Your task to perform on an android device: toggle notification dots Image 0: 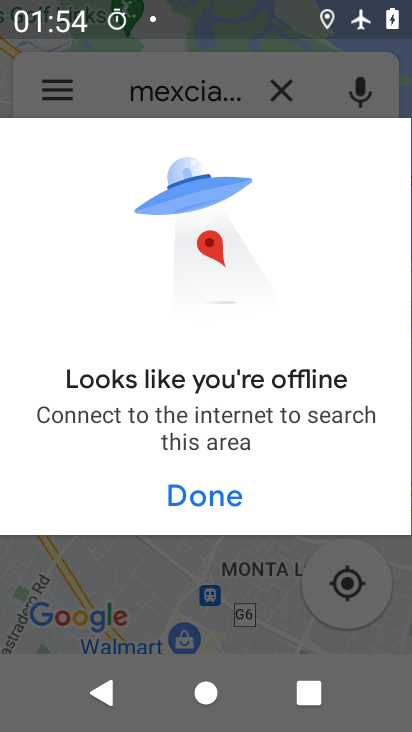
Step 0: press home button
Your task to perform on an android device: toggle notification dots Image 1: 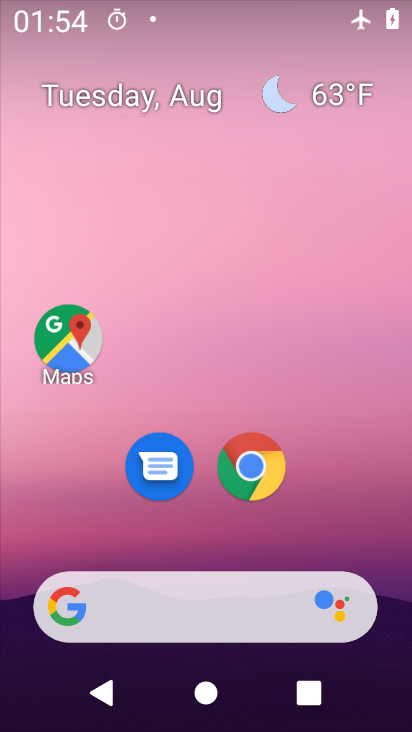
Step 1: drag from (362, 520) to (367, 114)
Your task to perform on an android device: toggle notification dots Image 2: 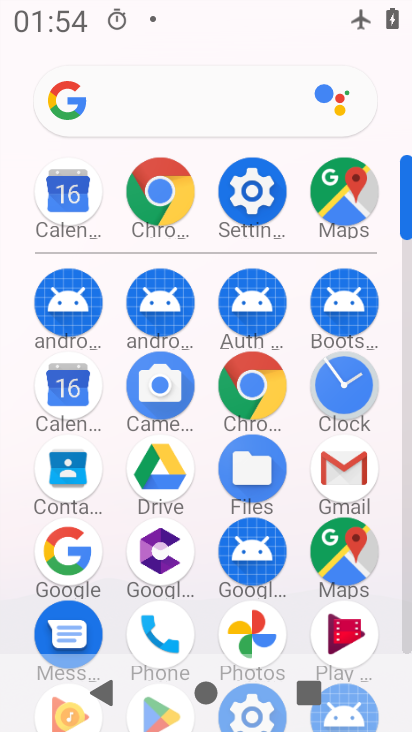
Step 2: click (262, 182)
Your task to perform on an android device: toggle notification dots Image 3: 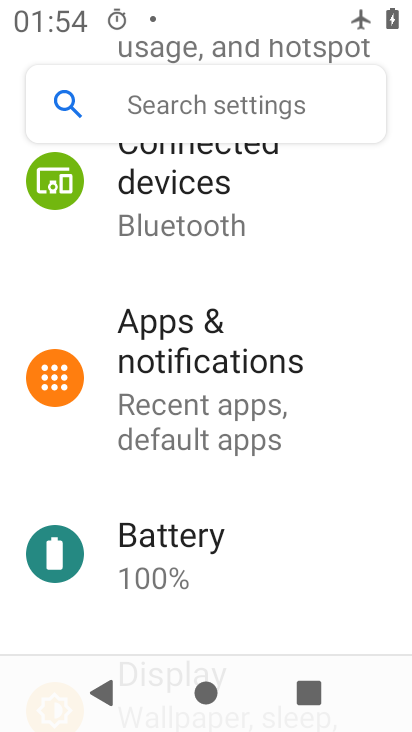
Step 3: drag from (355, 206) to (341, 363)
Your task to perform on an android device: toggle notification dots Image 4: 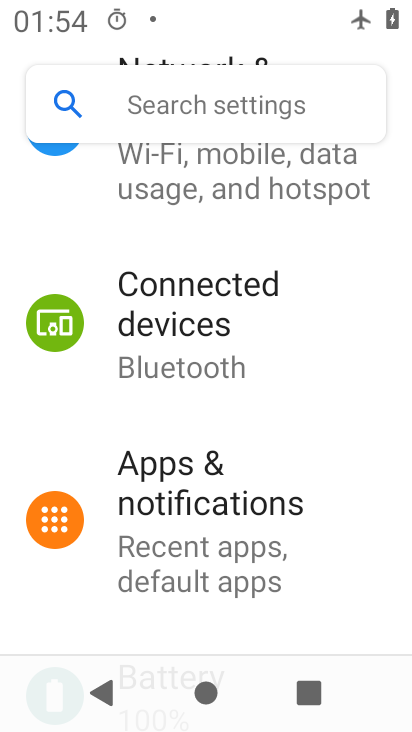
Step 4: drag from (374, 197) to (360, 356)
Your task to perform on an android device: toggle notification dots Image 5: 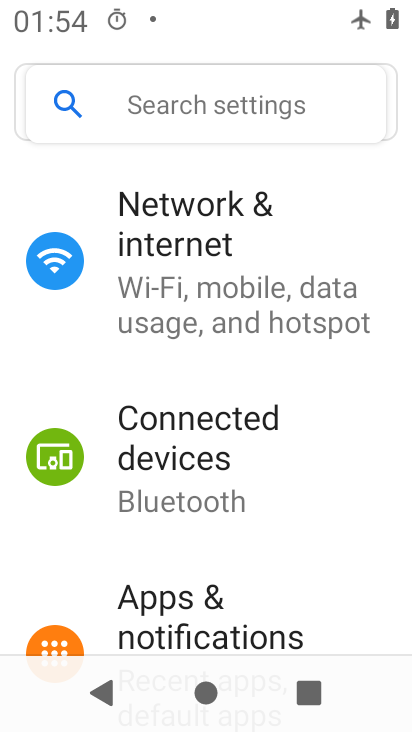
Step 5: drag from (363, 182) to (345, 401)
Your task to perform on an android device: toggle notification dots Image 6: 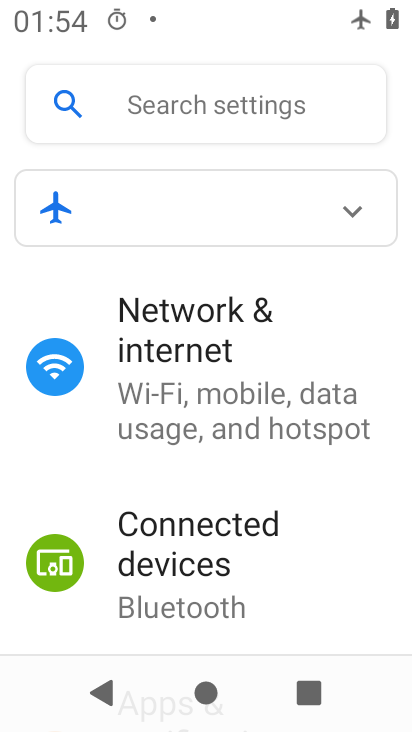
Step 6: drag from (326, 494) to (350, 338)
Your task to perform on an android device: toggle notification dots Image 7: 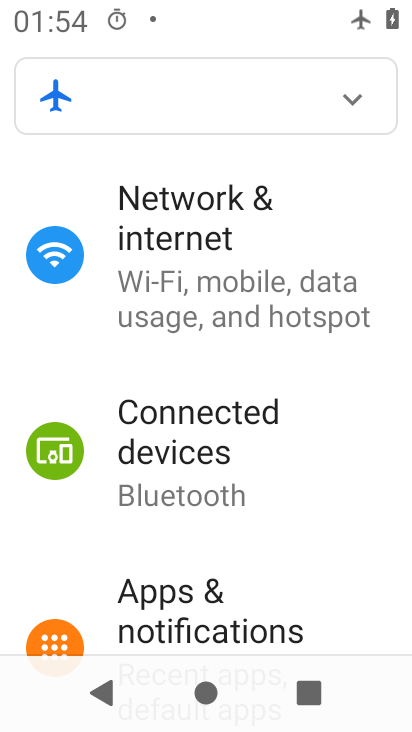
Step 7: drag from (336, 501) to (357, 383)
Your task to perform on an android device: toggle notification dots Image 8: 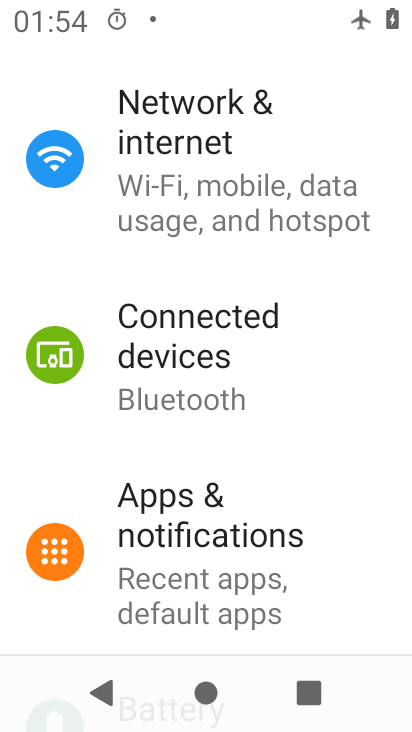
Step 8: drag from (342, 515) to (360, 358)
Your task to perform on an android device: toggle notification dots Image 9: 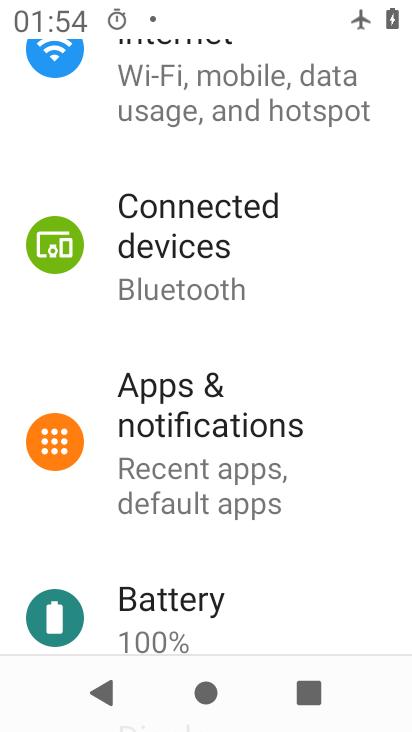
Step 9: drag from (331, 539) to (354, 396)
Your task to perform on an android device: toggle notification dots Image 10: 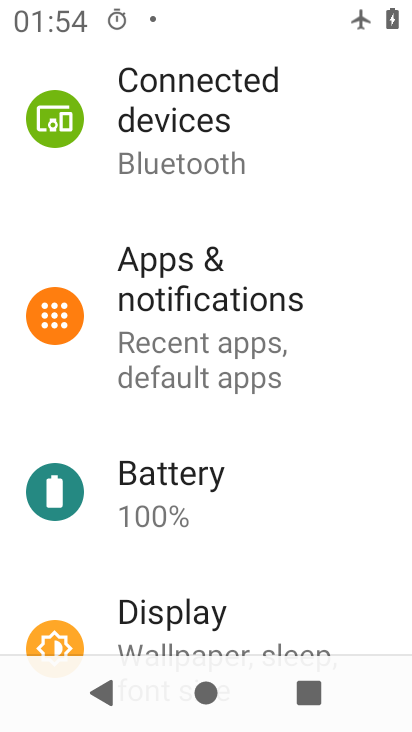
Step 10: drag from (312, 492) to (339, 344)
Your task to perform on an android device: toggle notification dots Image 11: 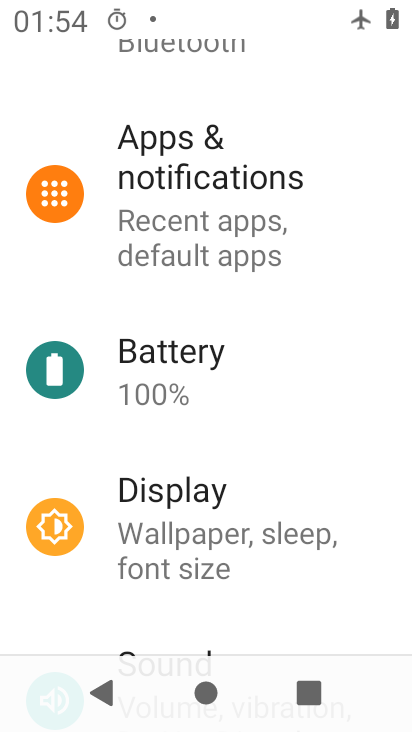
Step 11: click (264, 237)
Your task to perform on an android device: toggle notification dots Image 12: 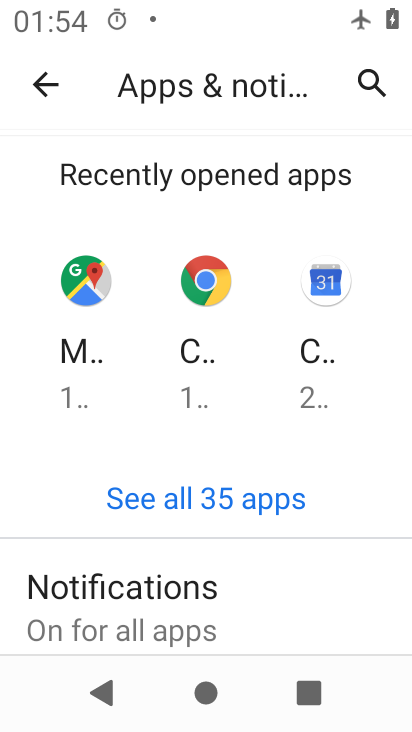
Step 12: drag from (313, 585) to (329, 364)
Your task to perform on an android device: toggle notification dots Image 13: 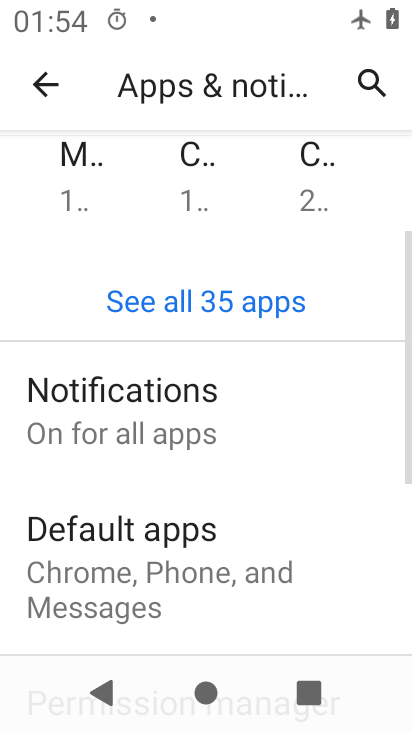
Step 13: drag from (354, 490) to (371, 322)
Your task to perform on an android device: toggle notification dots Image 14: 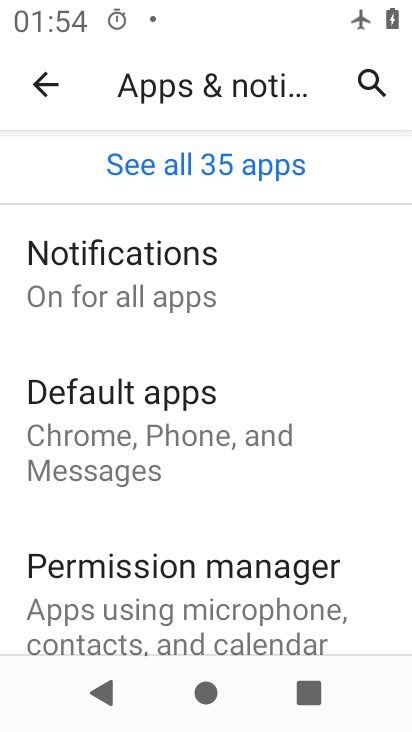
Step 14: click (233, 281)
Your task to perform on an android device: toggle notification dots Image 15: 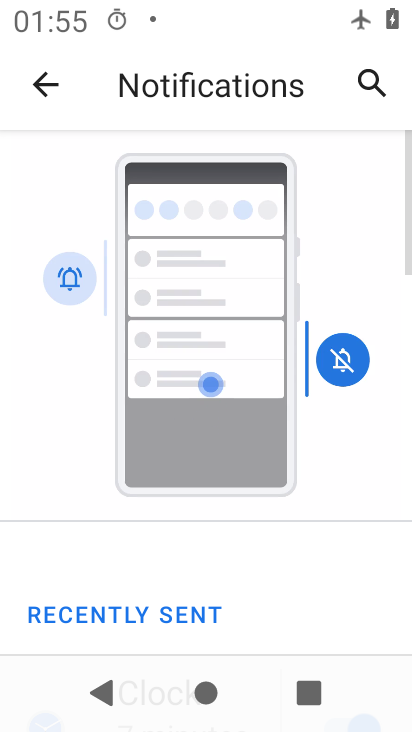
Step 15: drag from (325, 502) to (324, 305)
Your task to perform on an android device: toggle notification dots Image 16: 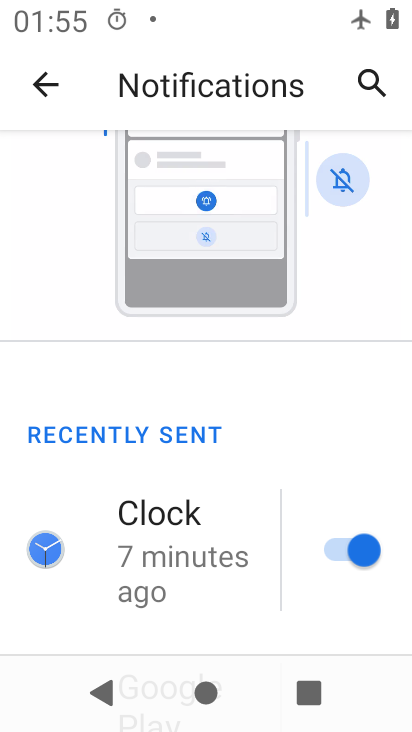
Step 16: drag from (302, 546) to (318, 391)
Your task to perform on an android device: toggle notification dots Image 17: 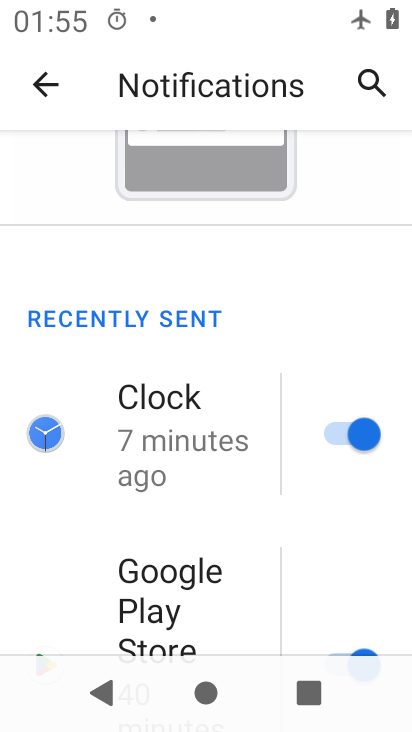
Step 17: drag from (305, 522) to (311, 343)
Your task to perform on an android device: toggle notification dots Image 18: 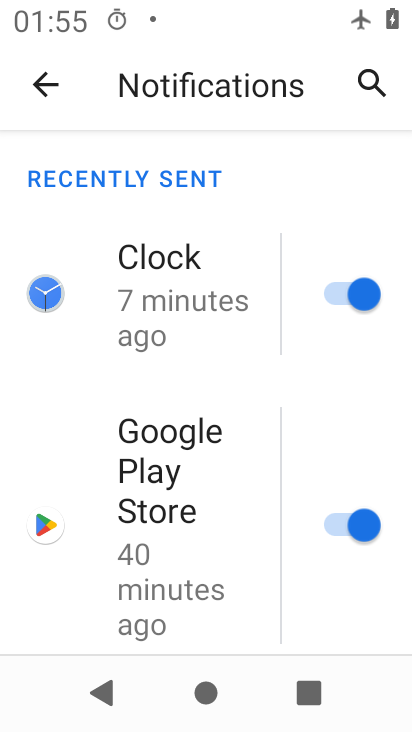
Step 18: drag from (242, 572) to (268, 340)
Your task to perform on an android device: toggle notification dots Image 19: 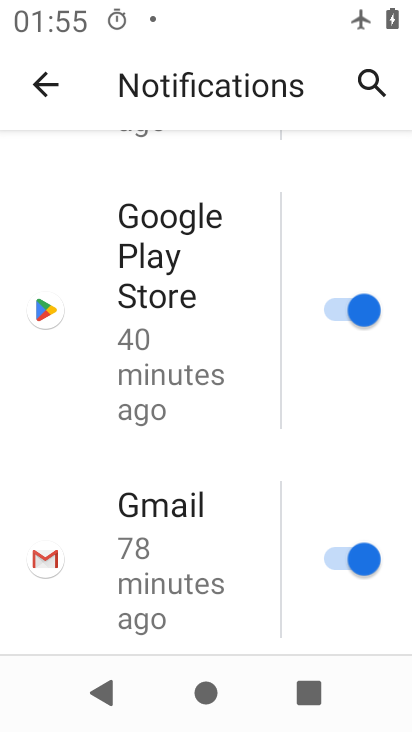
Step 19: drag from (256, 596) to (249, 346)
Your task to perform on an android device: toggle notification dots Image 20: 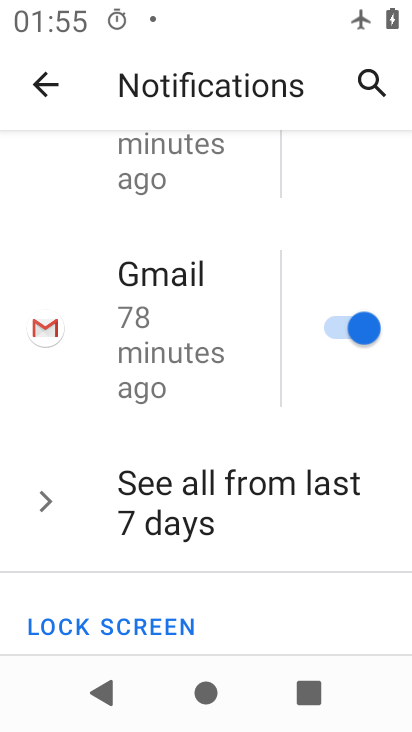
Step 20: drag from (248, 590) to (253, 340)
Your task to perform on an android device: toggle notification dots Image 21: 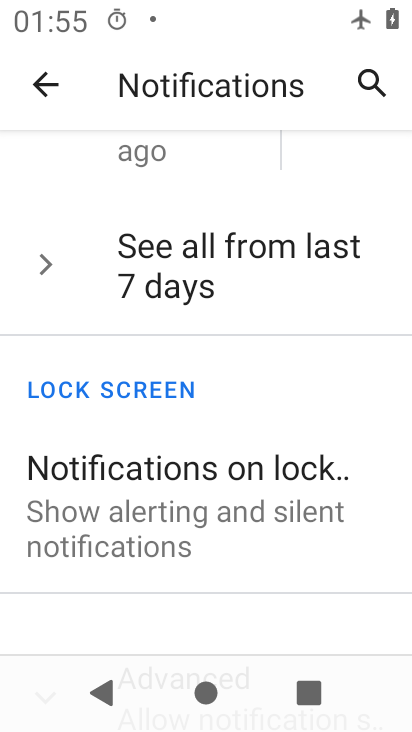
Step 21: drag from (244, 586) to (262, 381)
Your task to perform on an android device: toggle notification dots Image 22: 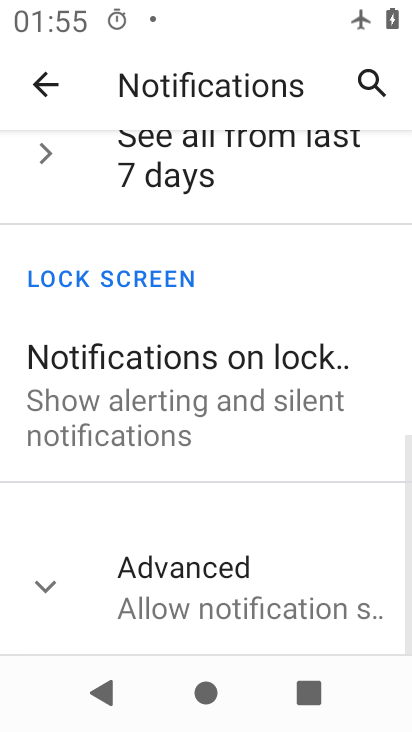
Step 22: click (253, 578)
Your task to perform on an android device: toggle notification dots Image 23: 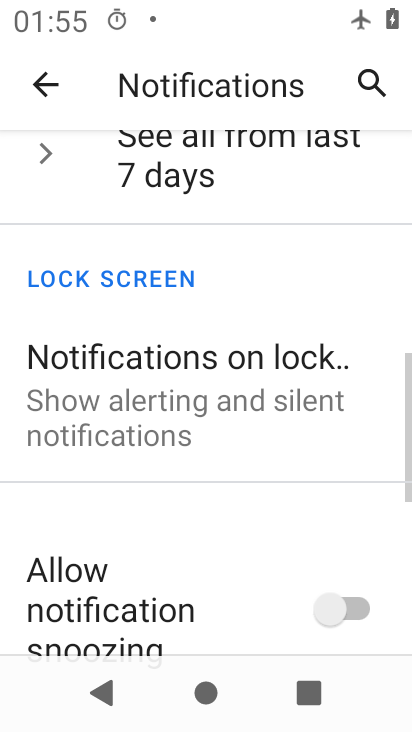
Step 23: drag from (238, 607) to (236, 403)
Your task to perform on an android device: toggle notification dots Image 24: 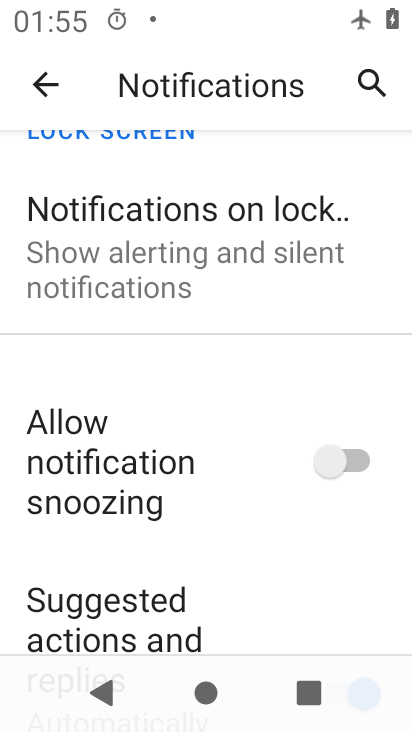
Step 24: drag from (256, 583) to (254, 397)
Your task to perform on an android device: toggle notification dots Image 25: 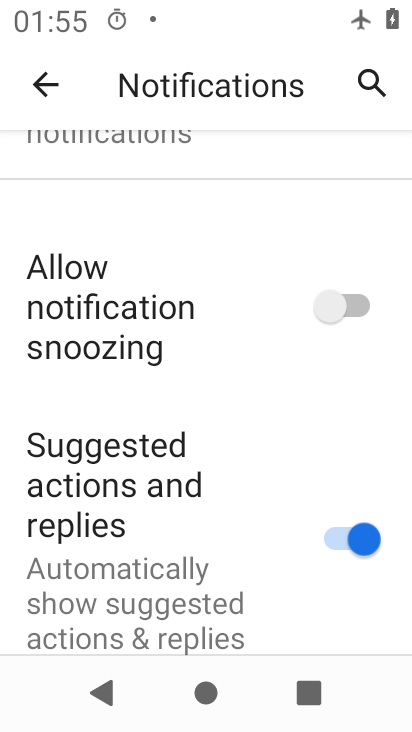
Step 25: drag from (278, 607) to (272, 361)
Your task to perform on an android device: toggle notification dots Image 26: 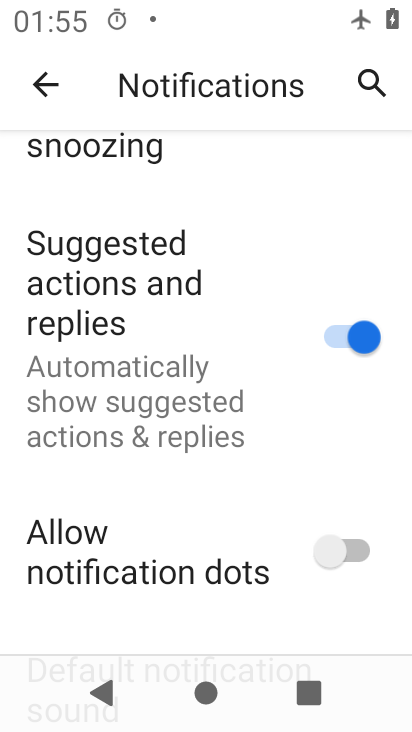
Step 26: click (337, 558)
Your task to perform on an android device: toggle notification dots Image 27: 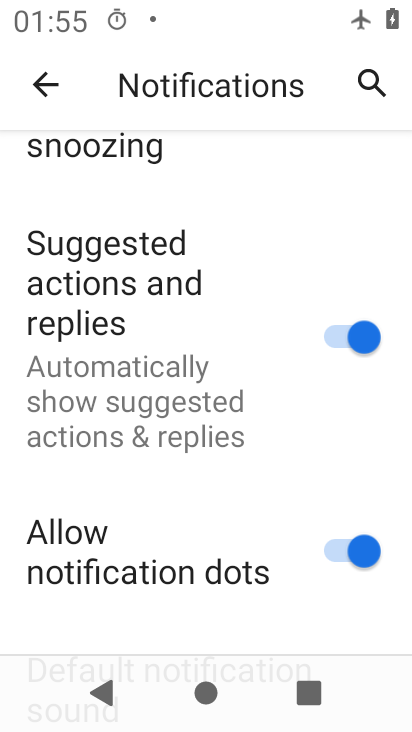
Step 27: task complete